Your task to perform on an android device: delete browsing data in the chrome app Image 0: 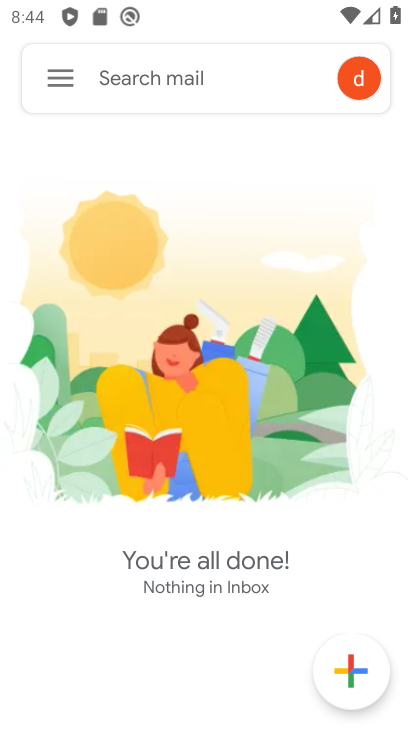
Step 0: press home button
Your task to perform on an android device: delete browsing data in the chrome app Image 1: 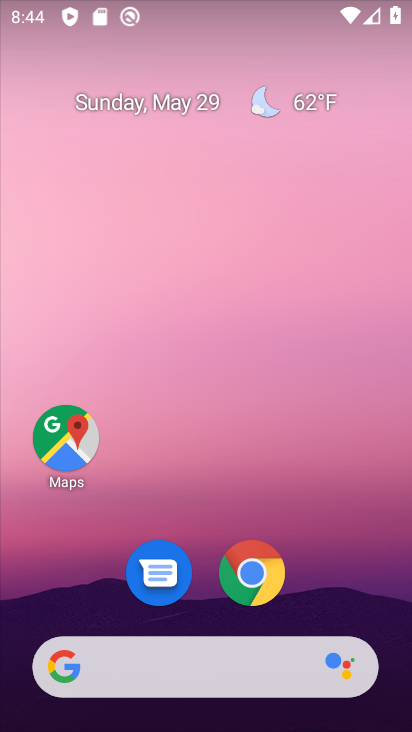
Step 1: click (243, 569)
Your task to perform on an android device: delete browsing data in the chrome app Image 2: 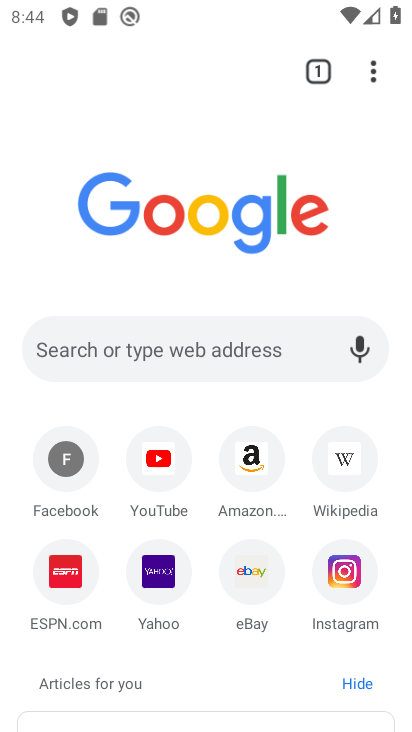
Step 2: click (375, 68)
Your task to perform on an android device: delete browsing data in the chrome app Image 3: 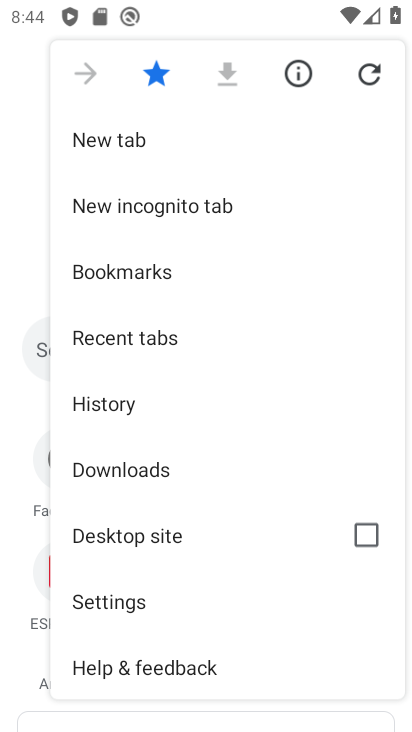
Step 3: click (115, 409)
Your task to perform on an android device: delete browsing data in the chrome app Image 4: 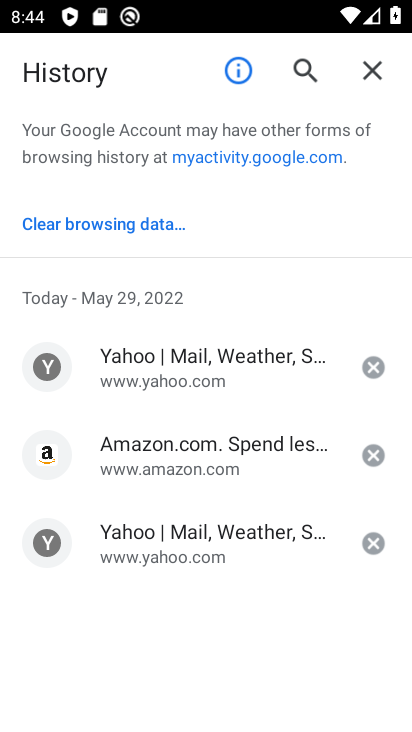
Step 4: click (133, 227)
Your task to perform on an android device: delete browsing data in the chrome app Image 5: 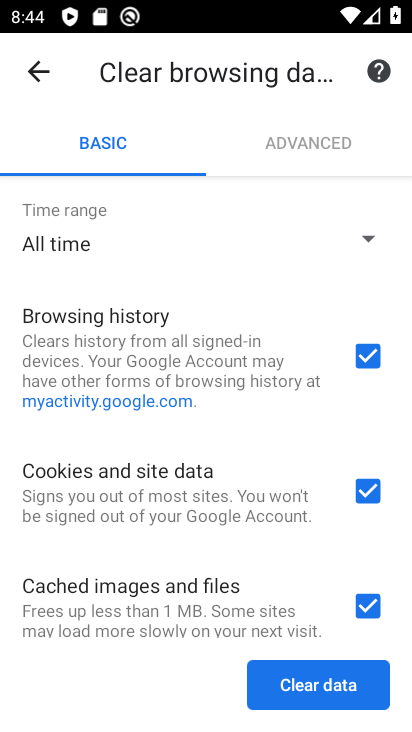
Step 5: click (365, 482)
Your task to perform on an android device: delete browsing data in the chrome app Image 6: 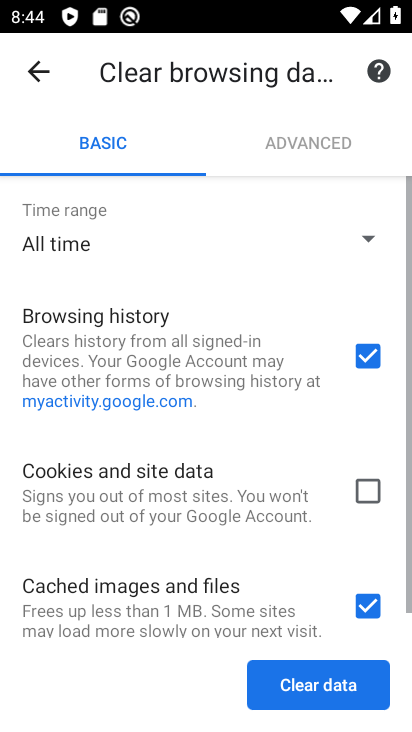
Step 6: click (363, 608)
Your task to perform on an android device: delete browsing data in the chrome app Image 7: 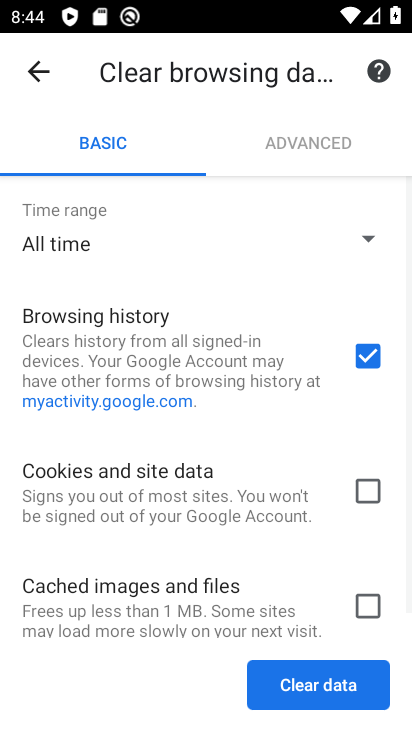
Step 7: click (317, 695)
Your task to perform on an android device: delete browsing data in the chrome app Image 8: 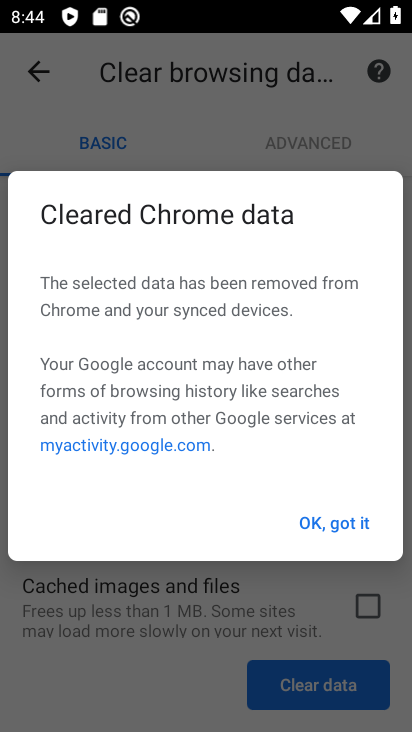
Step 8: click (342, 524)
Your task to perform on an android device: delete browsing data in the chrome app Image 9: 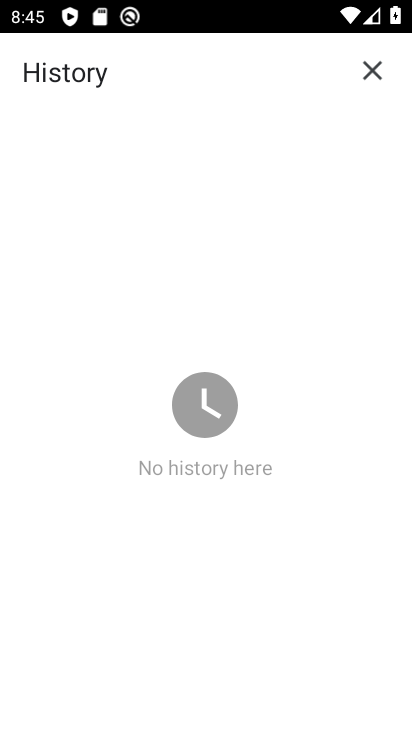
Step 9: task complete